Your task to perform on an android device: empty trash in google photos Image 0: 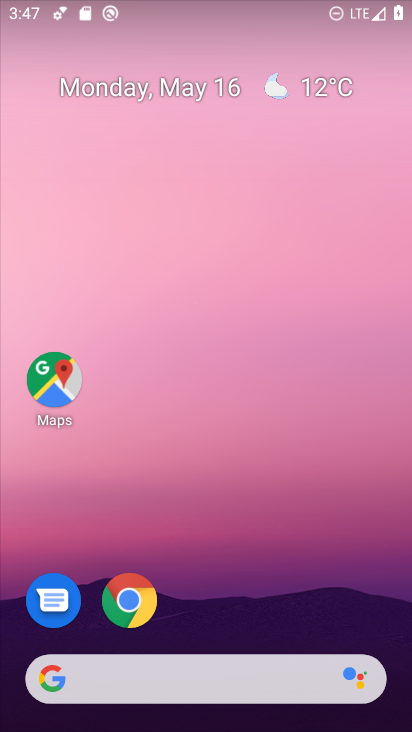
Step 0: drag from (300, 460) to (300, 12)
Your task to perform on an android device: empty trash in google photos Image 1: 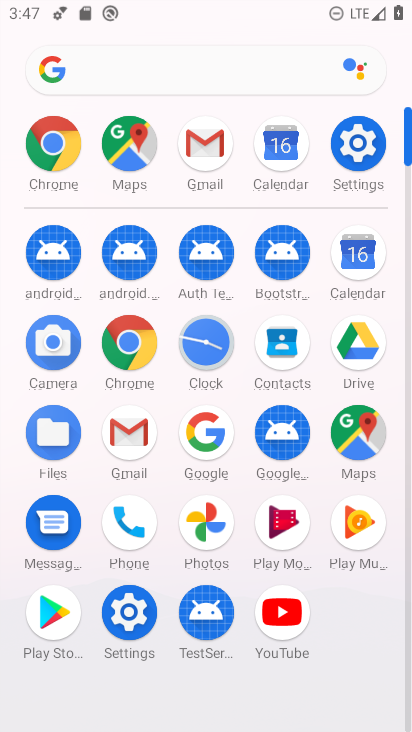
Step 1: click (209, 517)
Your task to perform on an android device: empty trash in google photos Image 2: 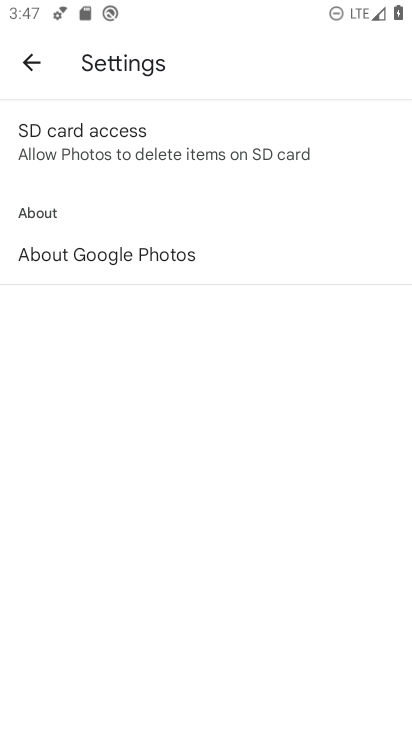
Step 2: click (42, 67)
Your task to perform on an android device: empty trash in google photos Image 3: 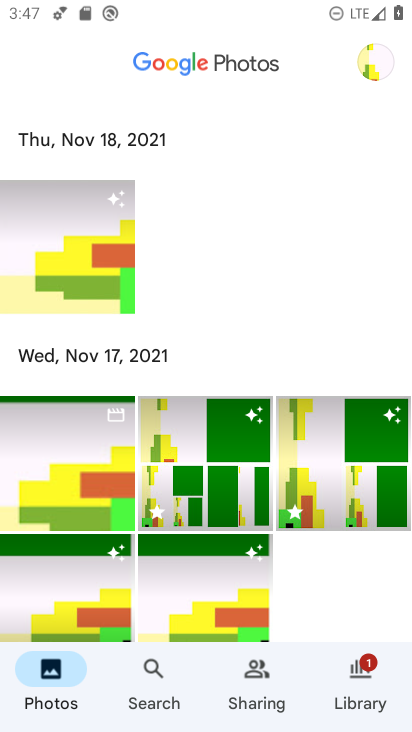
Step 3: click (375, 689)
Your task to perform on an android device: empty trash in google photos Image 4: 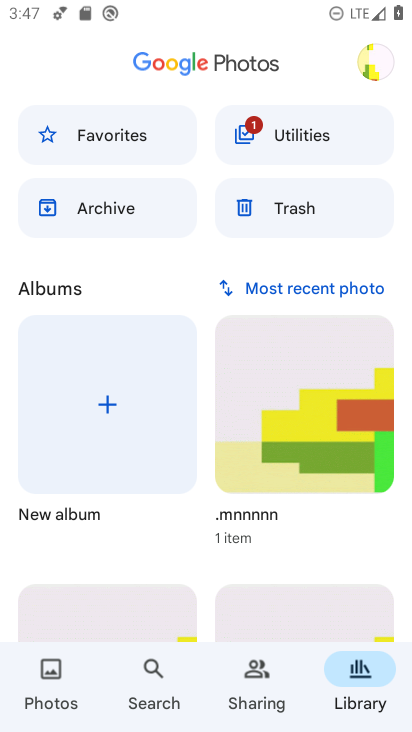
Step 4: click (292, 208)
Your task to perform on an android device: empty trash in google photos Image 5: 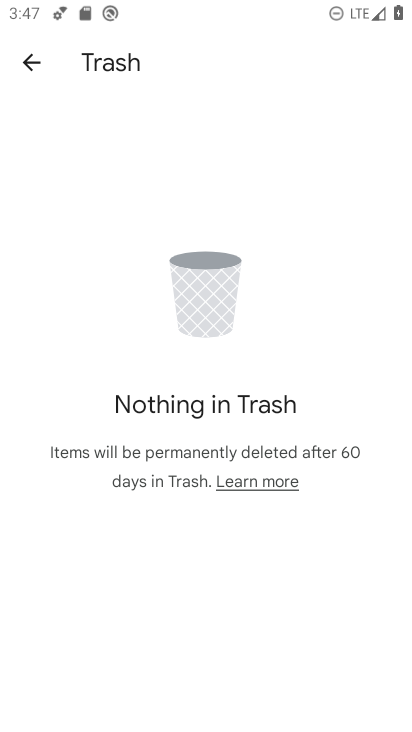
Step 5: task complete